Your task to perform on an android device: turn on priority inbox in the gmail app Image 0: 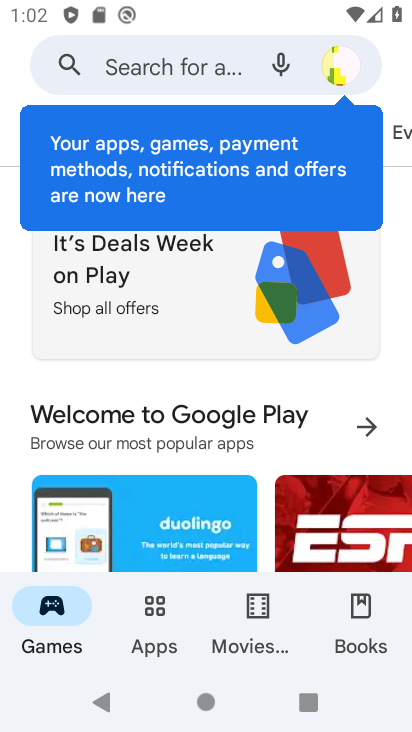
Step 0: press home button
Your task to perform on an android device: turn on priority inbox in the gmail app Image 1: 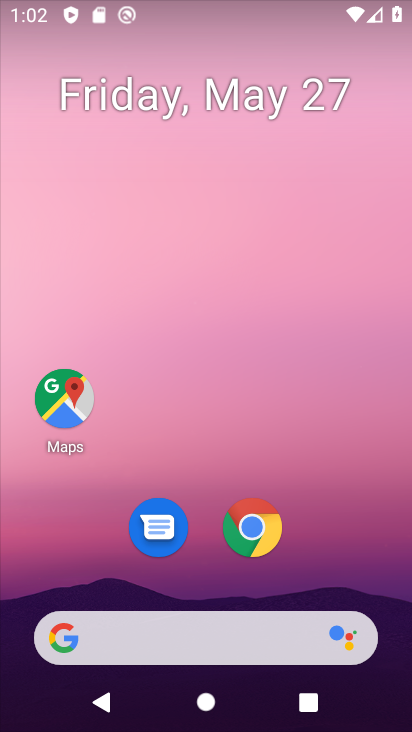
Step 1: drag from (274, 687) to (367, 101)
Your task to perform on an android device: turn on priority inbox in the gmail app Image 2: 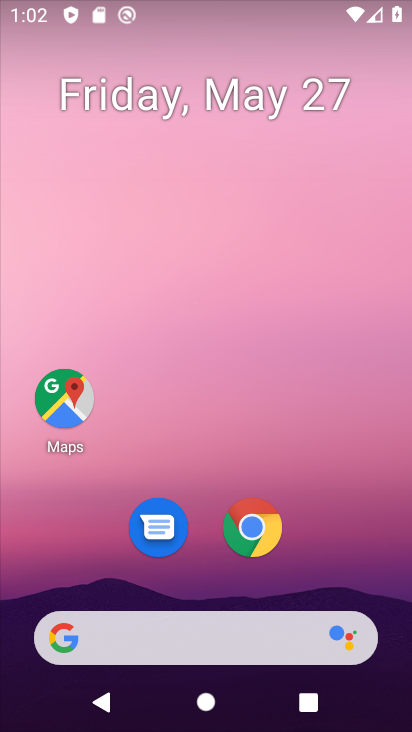
Step 2: drag from (259, 705) to (247, 12)
Your task to perform on an android device: turn on priority inbox in the gmail app Image 3: 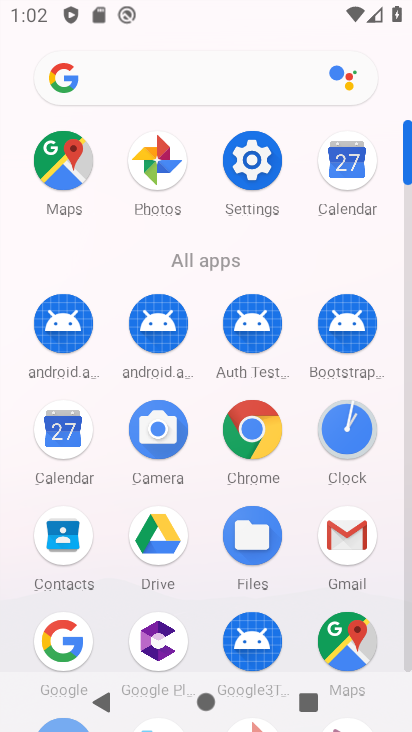
Step 3: click (362, 562)
Your task to perform on an android device: turn on priority inbox in the gmail app Image 4: 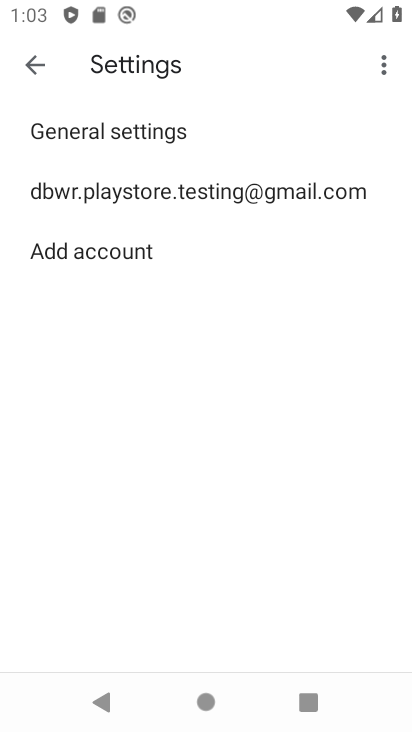
Step 4: click (166, 186)
Your task to perform on an android device: turn on priority inbox in the gmail app Image 5: 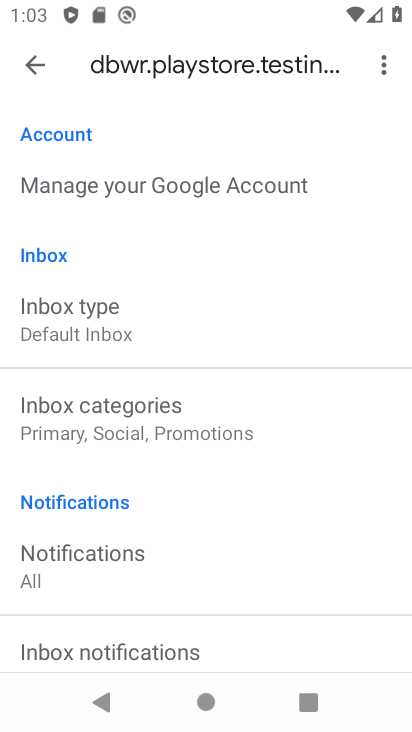
Step 5: click (97, 291)
Your task to perform on an android device: turn on priority inbox in the gmail app Image 6: 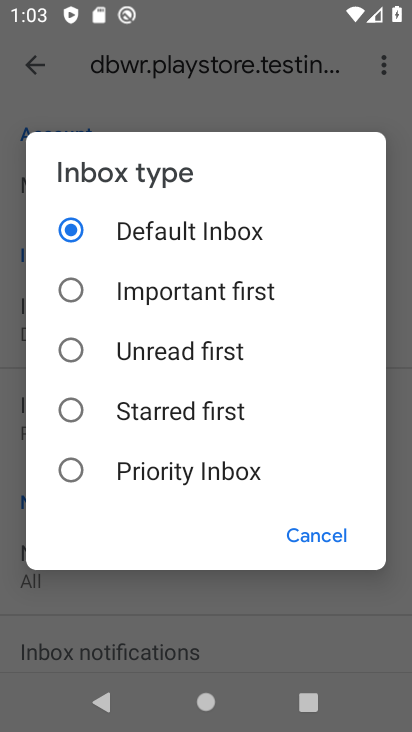
Step 6: click (196, 465)
Your task to perform on an android device: turn on priority inbox in the gmail app Image 7: 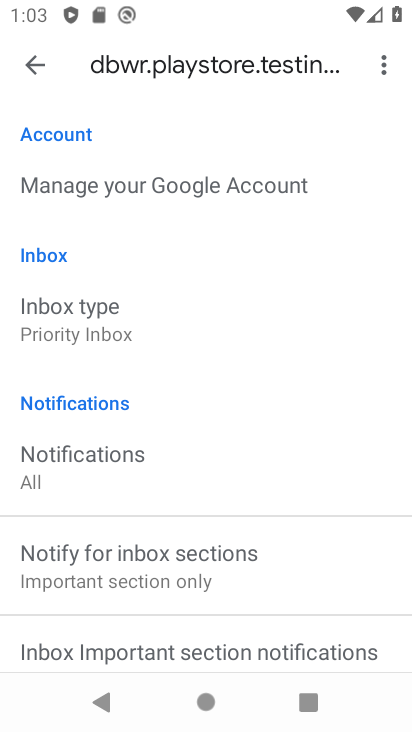
Step 7: task complete